Your task to perform on an android device: turn off picture-in-picture Image 0: 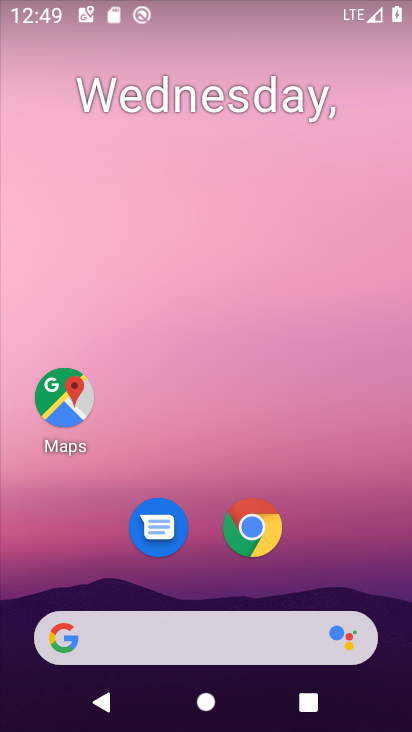
Step 0: drag from (287, 625) to (328, 67)
Your task to perform on an android device: turn off picture-in-picture Image 1: 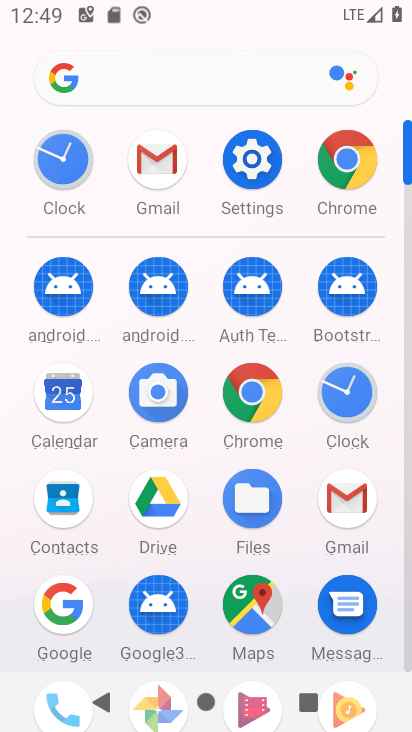
Step 1: click (262, 156)
Your task to perform on an android device: turn off picture-in-picture Image 2: 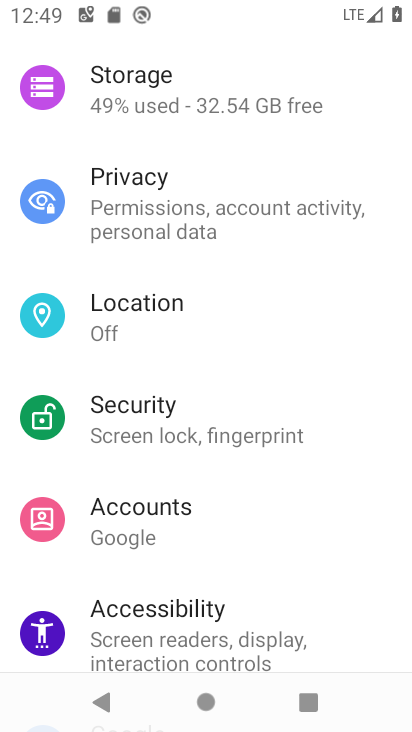
Step 2: drag from (207, 120) to (179, 694)
Your task to perform on an android device: turn off picture-in-picture Image 3: 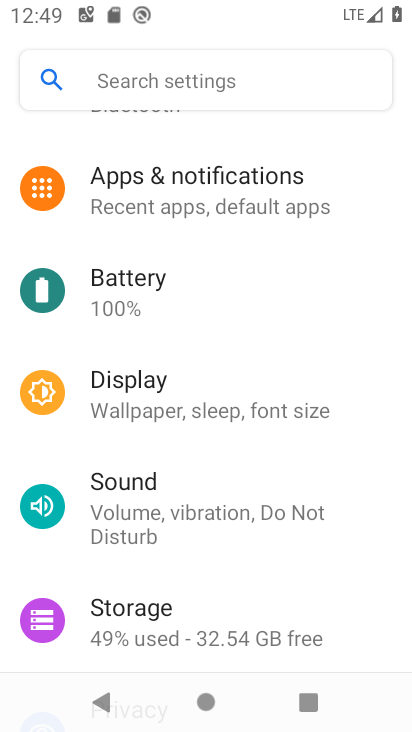
Step 3: click (182, 177)
Your task to perform on an android device: turn off picture-in-picture Image 4: 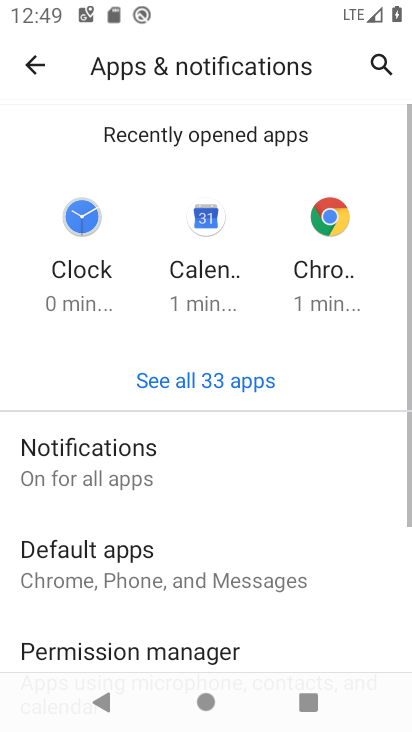
Step 4: drag from (242, 565) to (349, 4)
Your task to perform on an android device: turn off picture-in-picture Image 5: 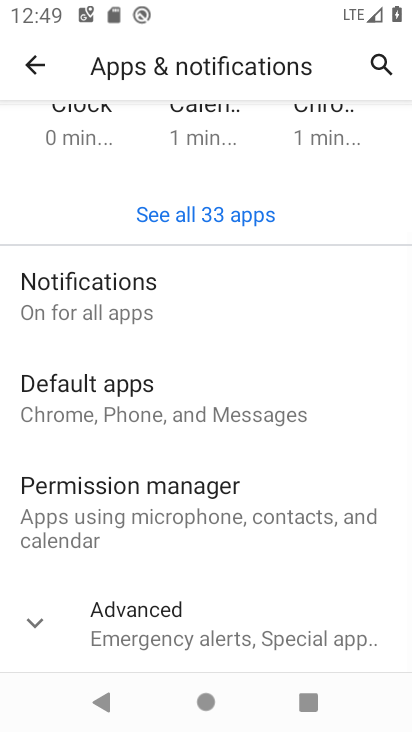
Step 5: click (300, 634)
Your task to perform on an android device: turn off picture-in-picture Image 6: 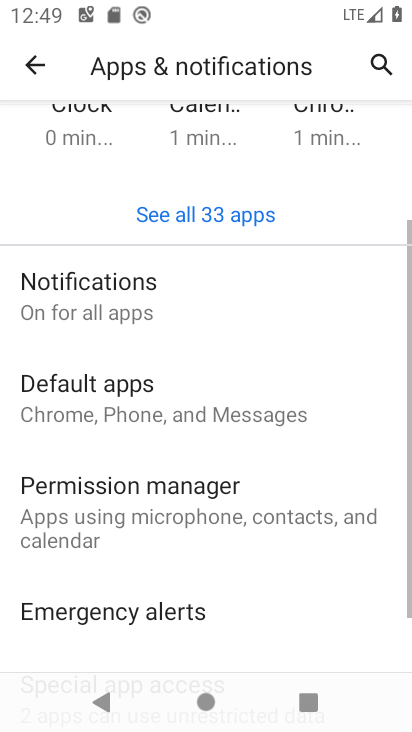
Step 6: drag from (300, 634) to (278, 192)
Your task to perform on an android device: turn off picture-in-picture Image 7: 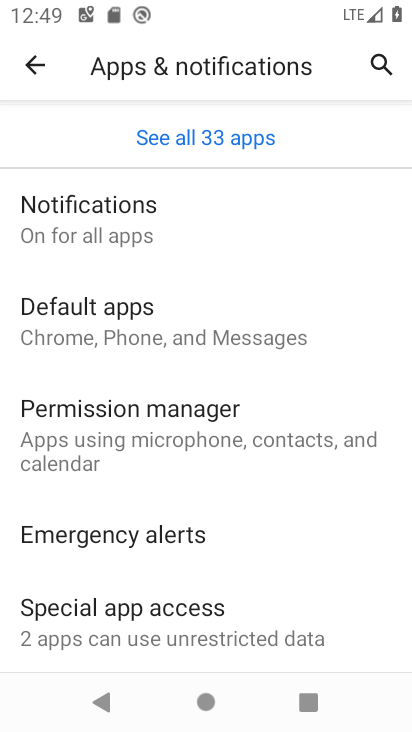
Step 7: click (193, 630)
Your task to perform on an android device: turn off picture-in-picture Image 8: 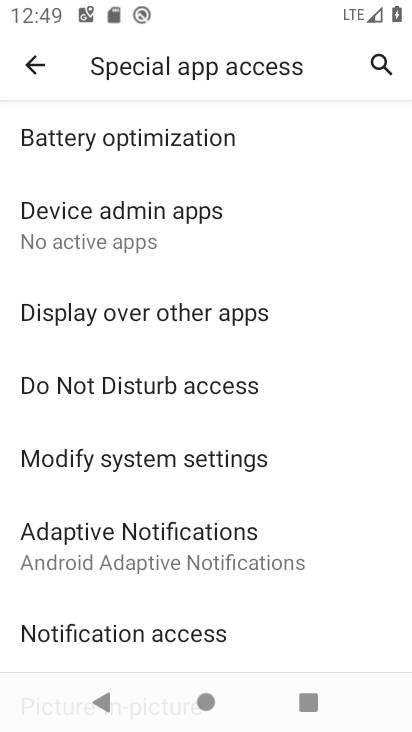
Step 8: drag from (209, 568) to (214, 94)
Your task to perform on an android device: turn off picture-in-picture Image 9: 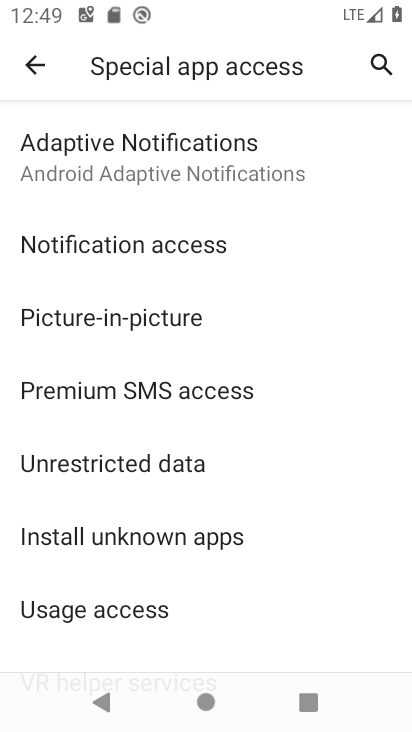
Step 9: click (176, 304)
Your task to perform on an android device: turn off picture-in-picture Image 10: 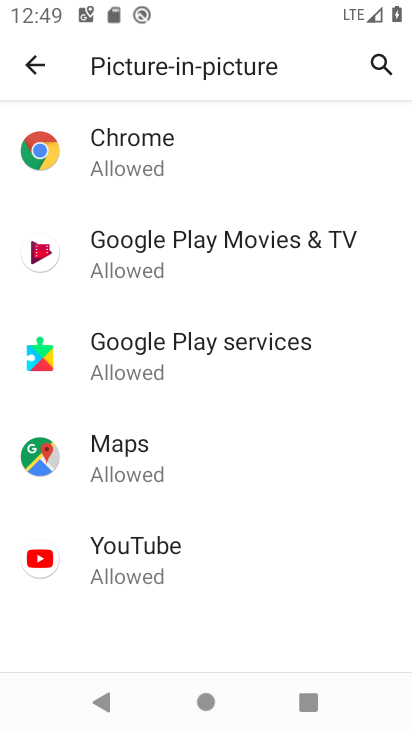
Step 10: click (135, 140)
Your task to perform on an android device: turn off picture-in-picture Image 11: 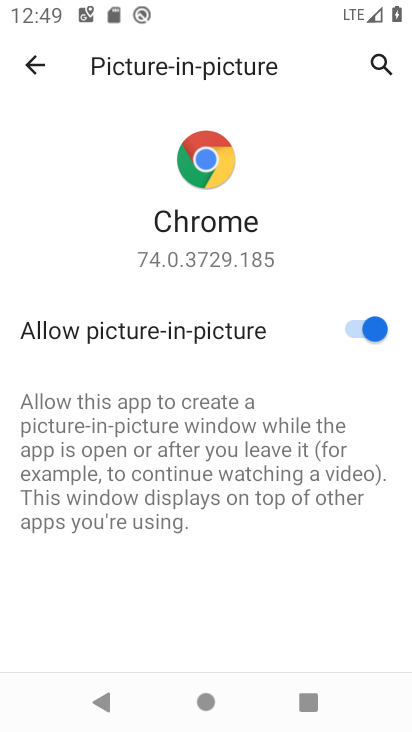
Step 11: click (372, 326)
Your task to perform on an android device: turn off picture-in-picture Image 12: 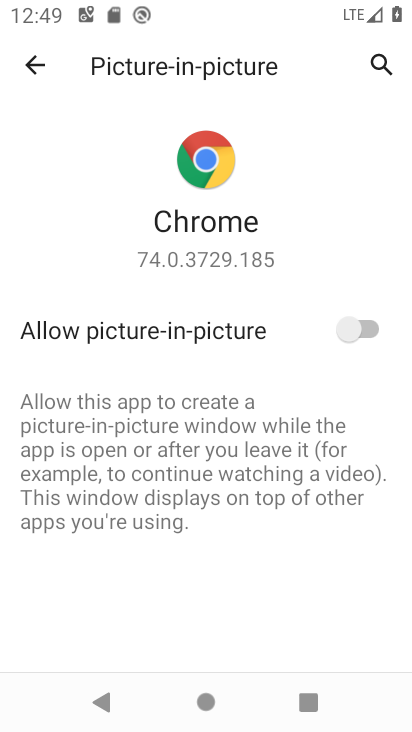
Step 12: press back button
Your task to perform on an android device: turn off picture-in-picture Image 13: 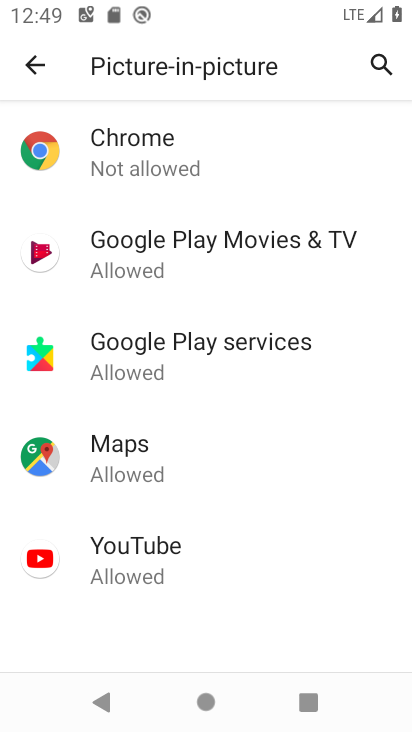
Step 13: click (267, 247)
Your task to perform on an android device: turn off picture-in-picture Image 14: 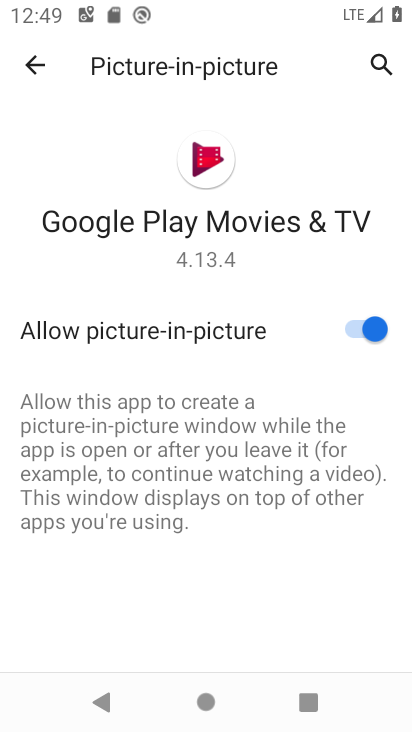
Step 14: click (354, 330)
Your task to perform on an android device: turn off picture-in-picture Image 15: 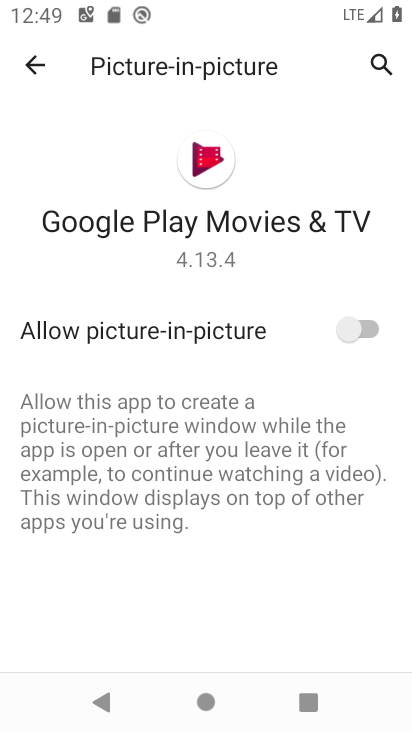
Step 15: press back button
Your task to perform on an android device: turn off picture-in-picture Image 16: 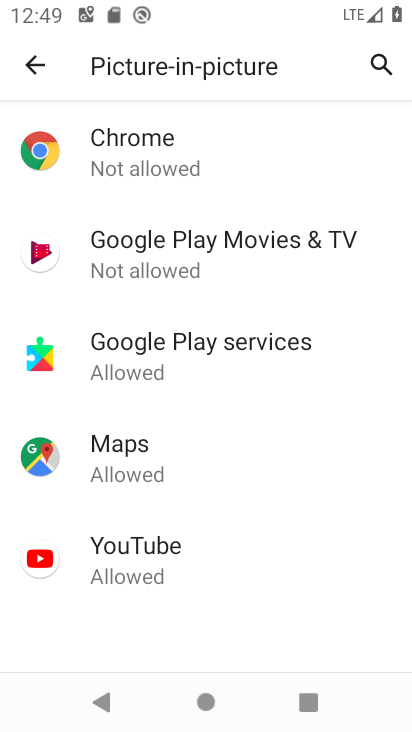
Step 16: click (277, 358)
Your task to perform on an android device: turn off picture-in-picture Image 17: 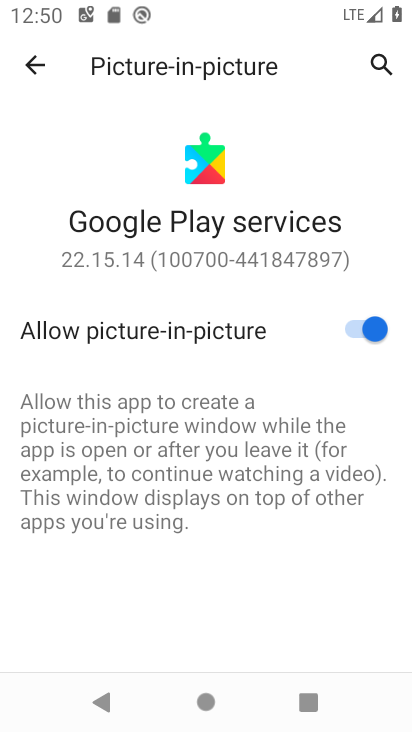
Step 17: click (362, 327)
Your task to perform on an android device: turn off picture-in-picture Image 18: 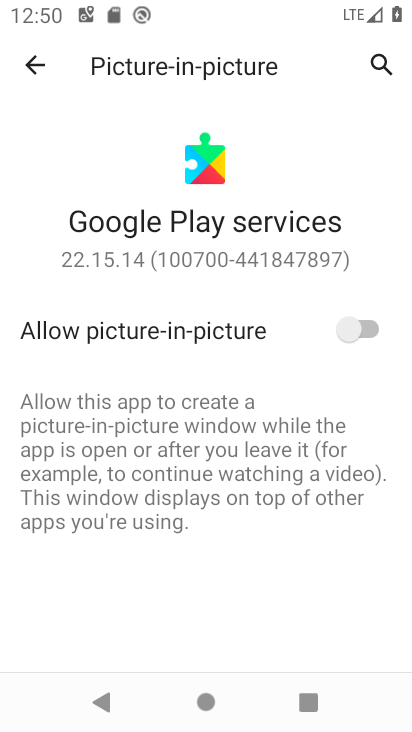
Step 18: press back button
Your task to perform on an android device: turn off picture-in-picture Image 19: 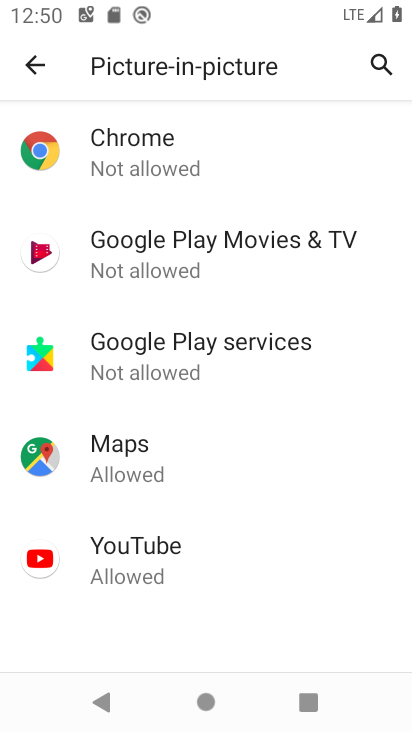
Step 19: click (157, 475)
Your task to perform on an android device: turn off picture-in-picture Image 20: 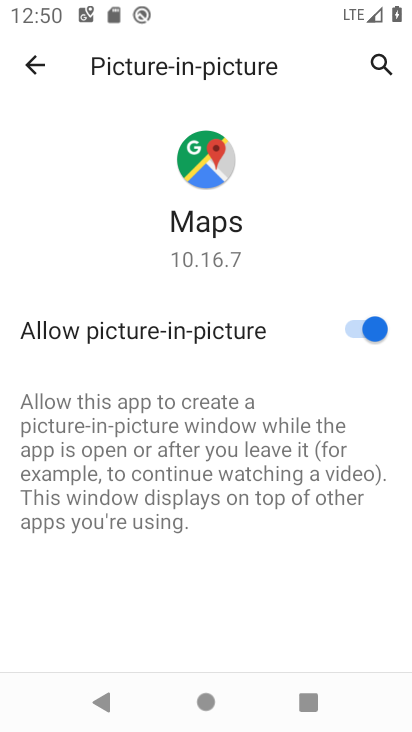
Step 20: click (355, 324)
Your task to perform on an android device: turn off picture-in-picture Image 21: 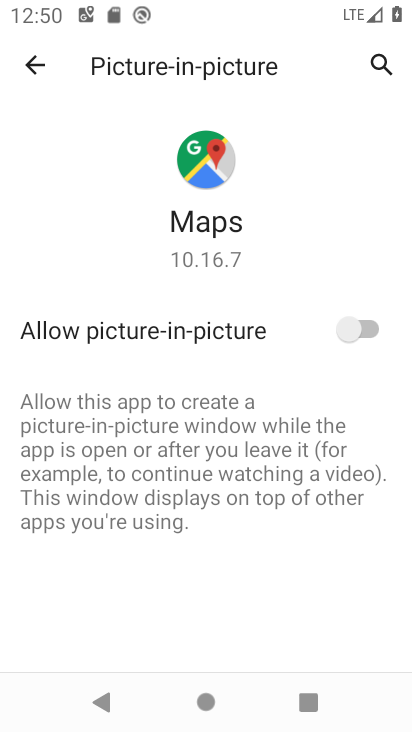
Step 21: press back button
Your task to perform on an android device: turn off picture-in-picture Image 22: 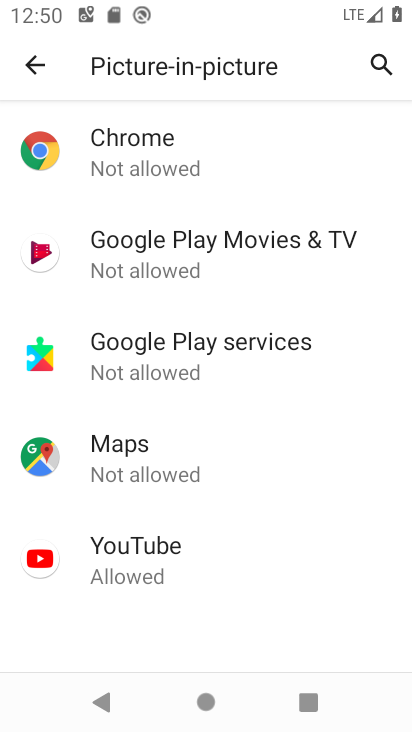
Step 22: click (159, 545)
Your task to perform on an android device: turn off picture-in-picture Image 23: 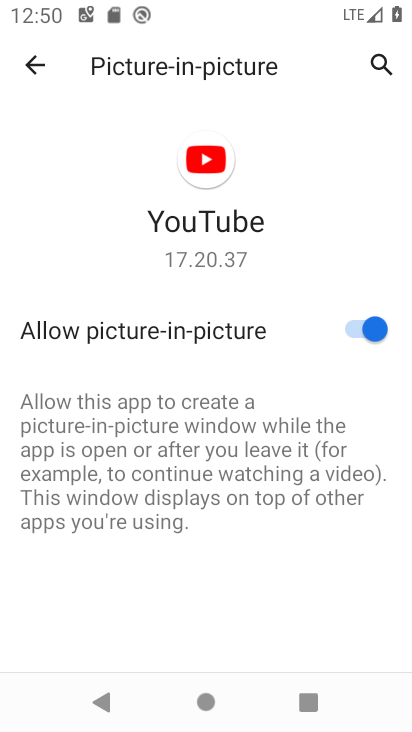
Step 23: click (362, 332)
Your task to perform on an android device: turn off picture-in-picture Image 24: 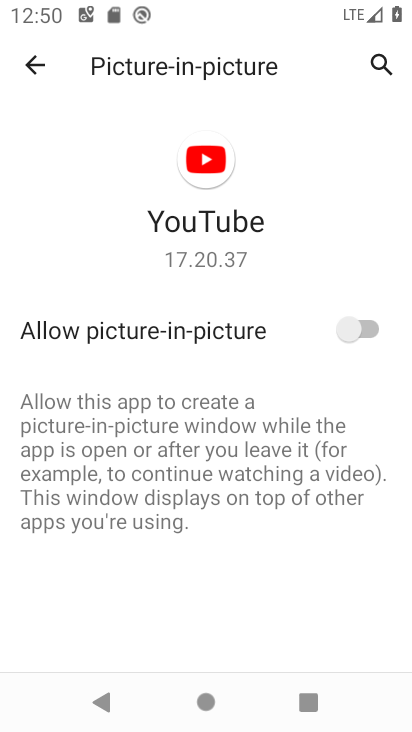
Step 24: task complete